Your task to perform on an android device: Open Maps and search for coffee Image 0: 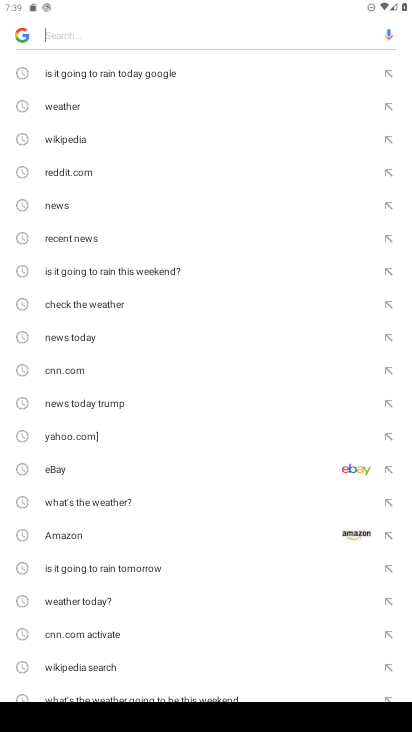
Step 0: press home button
Your task to perform on an android device: Open Maps and search for coffee Image 1: 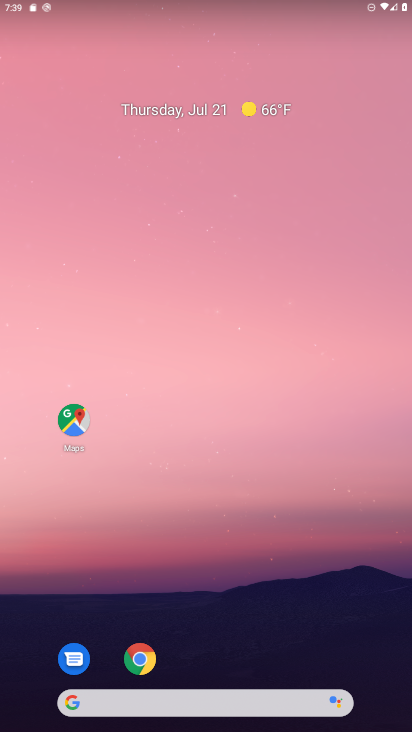
Step 1: drag from (164, 678) to (290, 246)
Your task to perform on an android device: Open Maps and search for coffee Image 2: 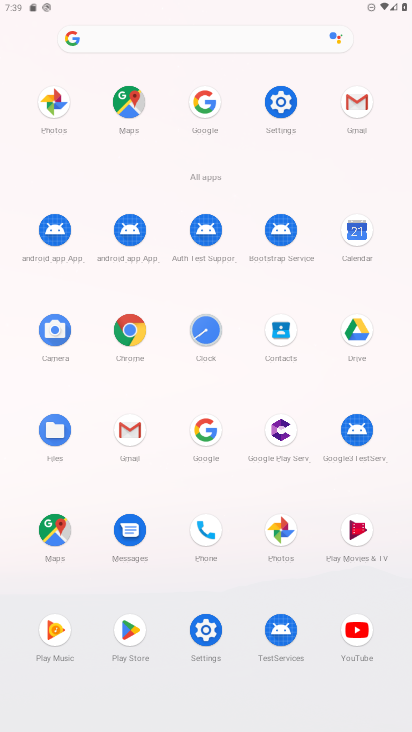
Step 2: click (53, 526)
Your task to perform on an android device: Open Maps and search for coffee Image 3: 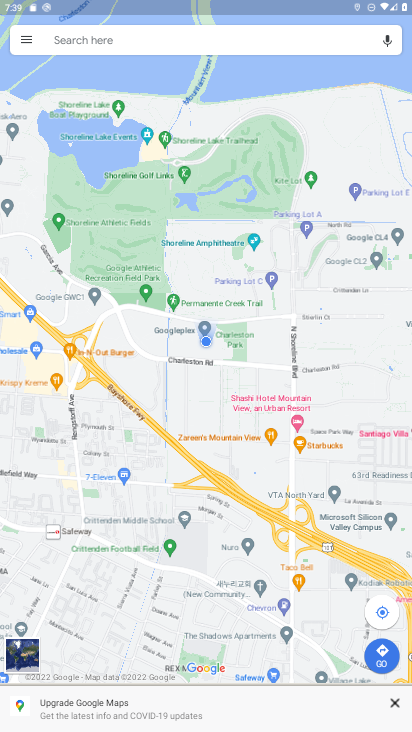
Step 3: click (87, 41)
Your task to perform on an android device: Open Maps and search for coffee Image 4: 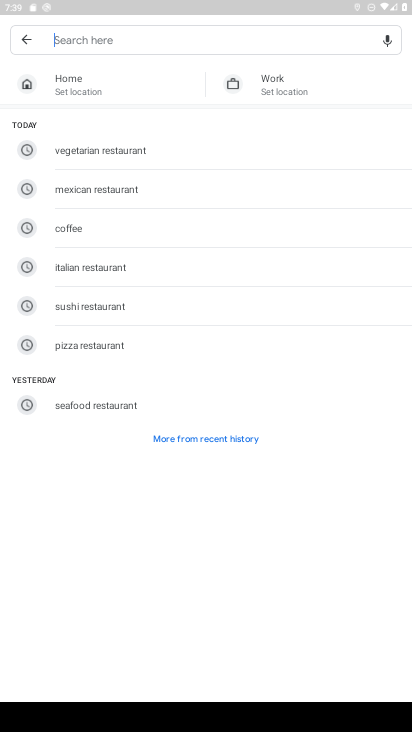
Step 4: type "coffee"
Your task to perform on an android device: Open Maps and search for coffee Image 5: 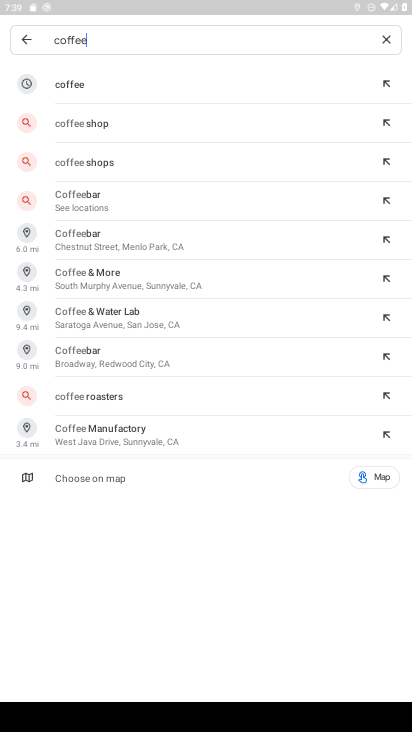
Step 5: click (84, 86)
Your task to perform on an android device: Open Maps and search for coffee Image 6: 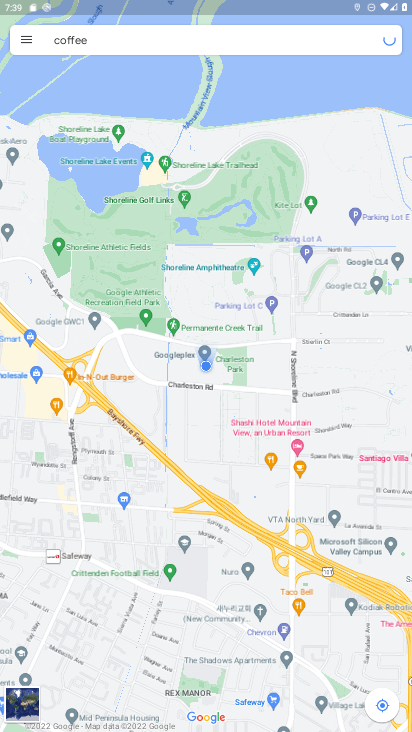
Step 6: task complete